Your task to perform on an android device: Open Wikipedia Image 0: 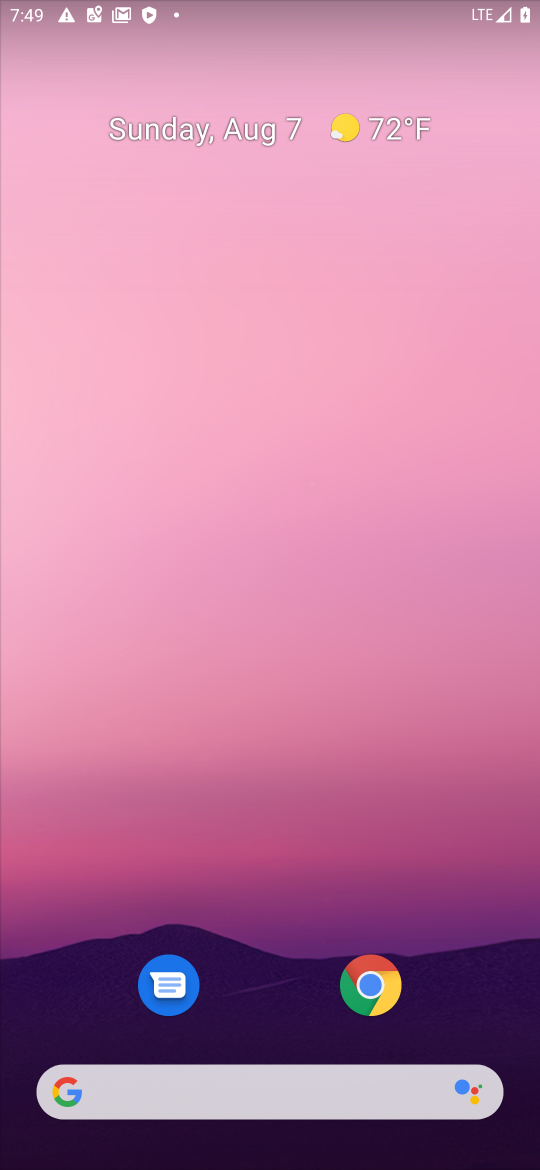
Step 0: drag from (257, 1019) to (277, 379)
Your task to perform on an android device: Open Wikipedia Image 1: 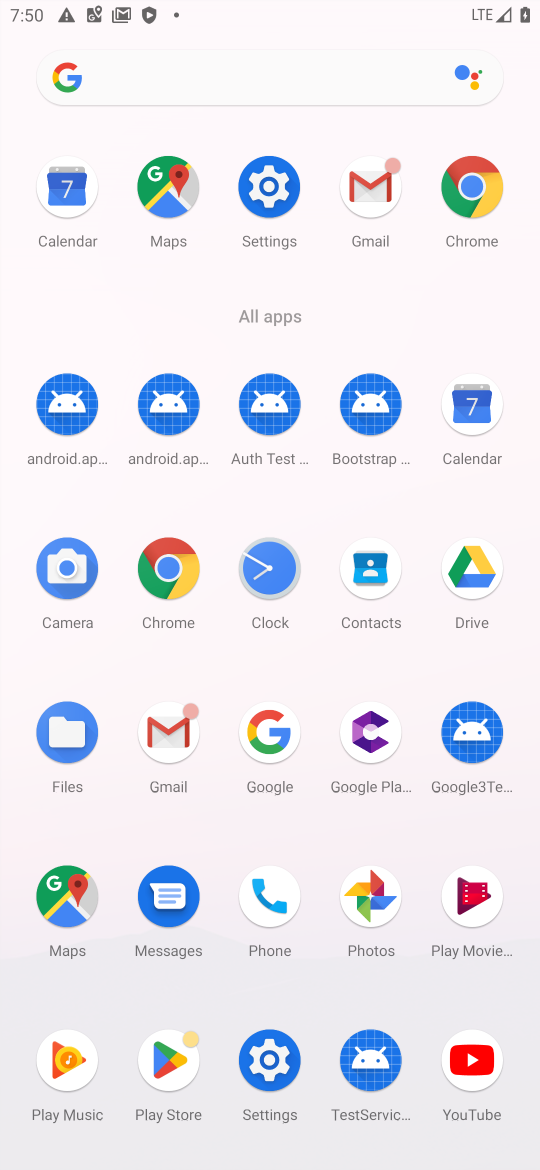
Step 1: click (182, 184)
Your task to perform on an android device: Open Wikipedia Image 2: 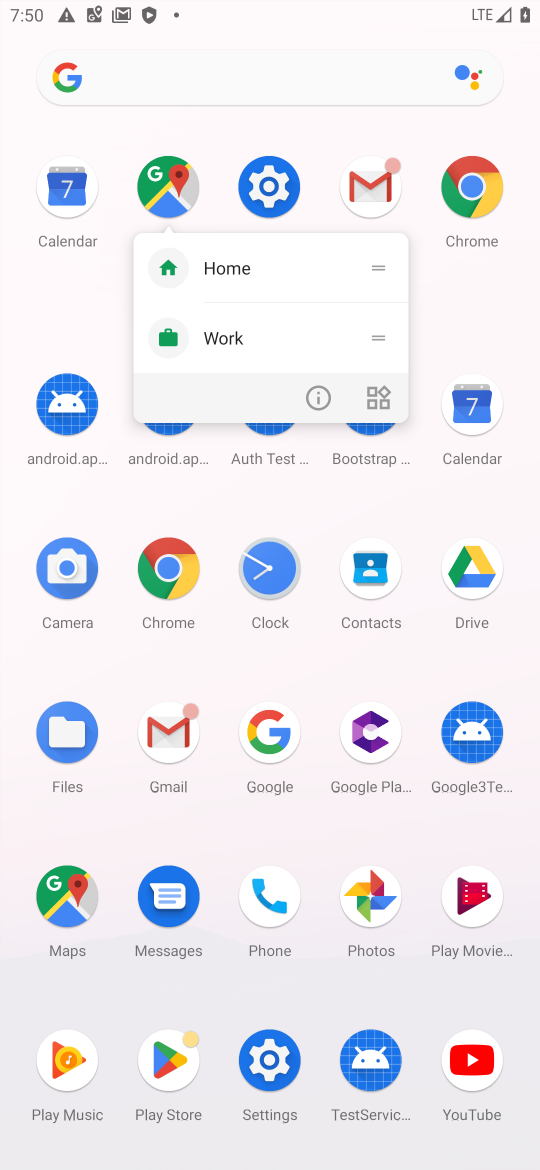
Step 2: click (157, 578)
Your task to perform on an android device: Open Wikipedia Image 3: 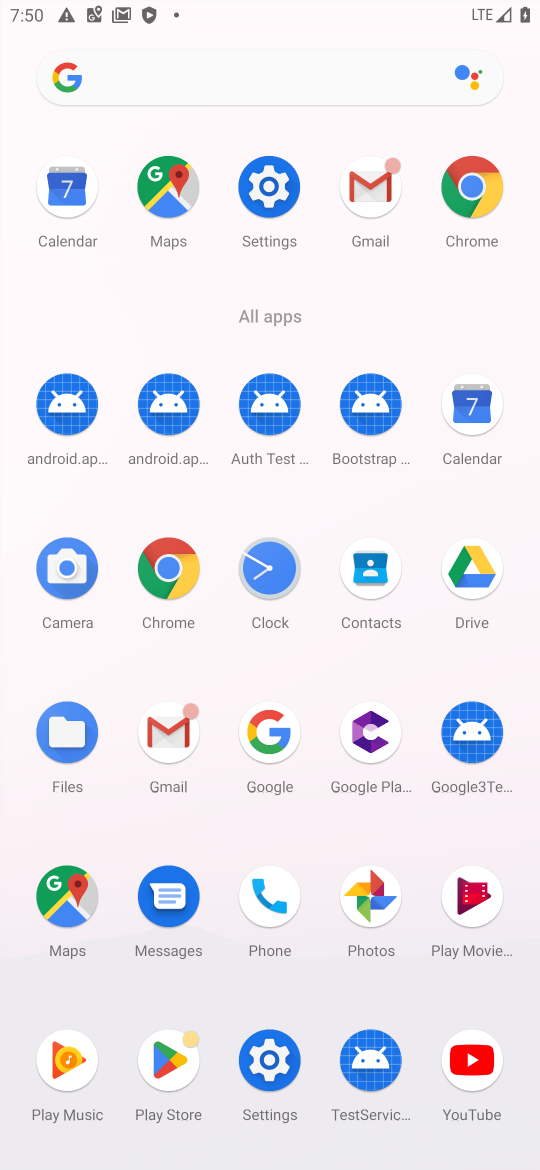
Step 3: click (157, 578)
Your task to perform on an android device: Open Wikipedia Image 4: 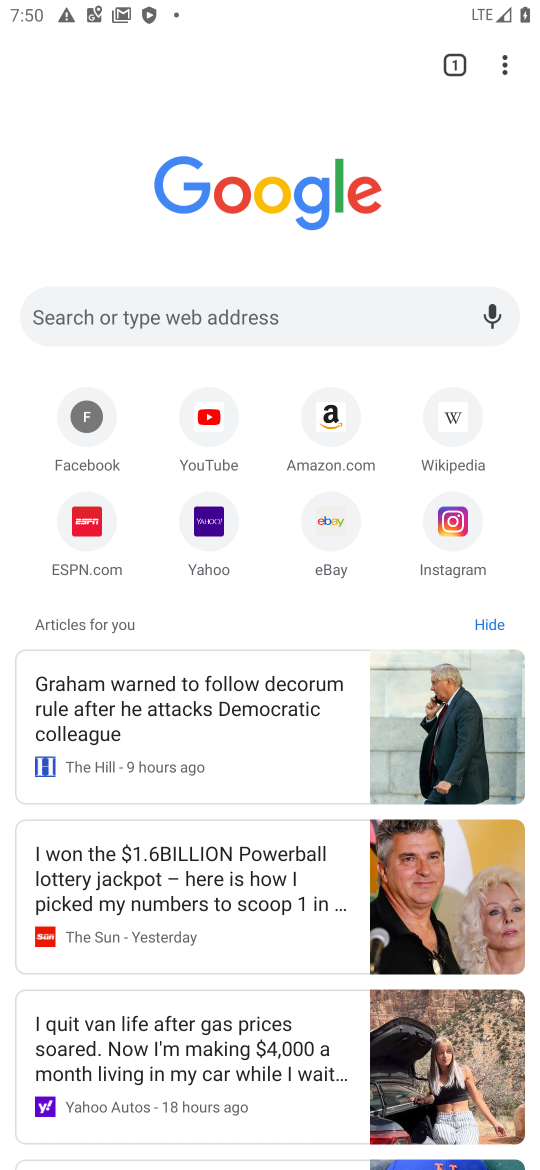
Step 4: click (500, 58)
Your task to perform on an android device: Open Wikipedia Image 5: 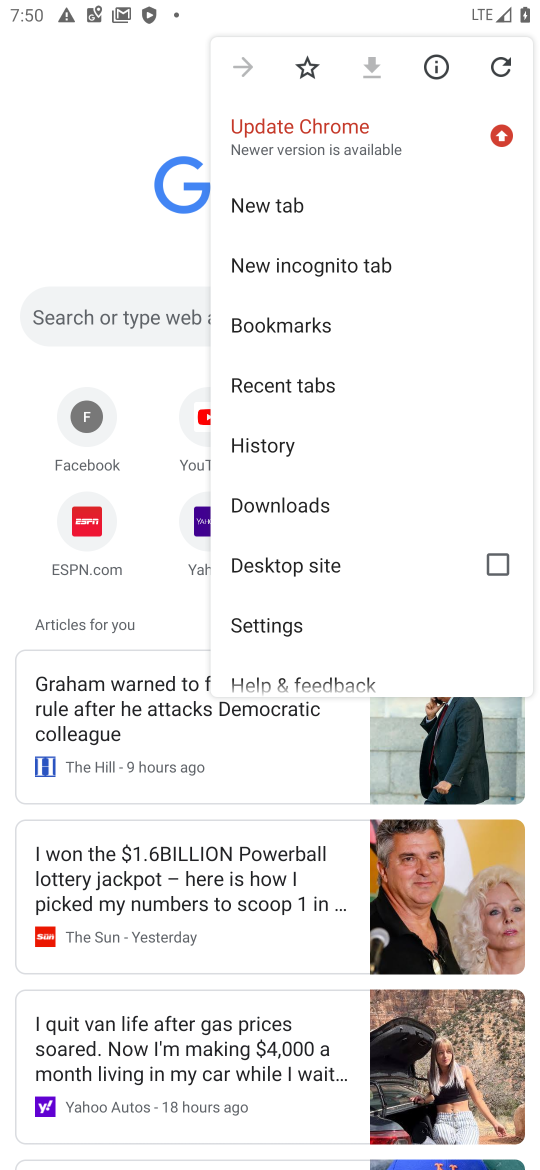
Step 5: click (271, 631)
Your task to perform on an android device: Open Wikipedia Image 6: 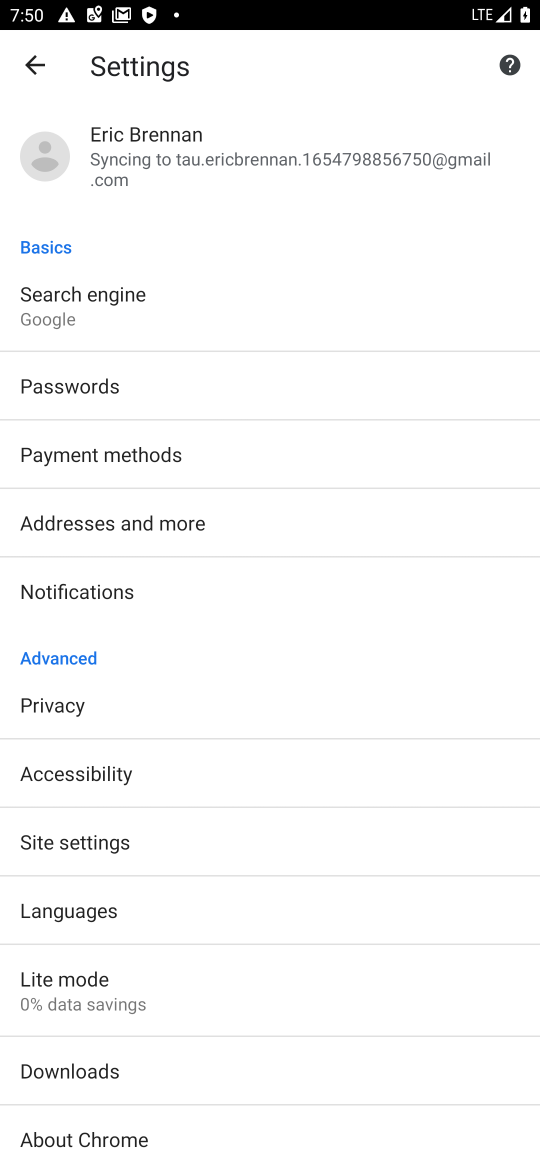
Step 6: click (49, 64)
Your task to perform on an android device: Open Wikipedia Image 7: 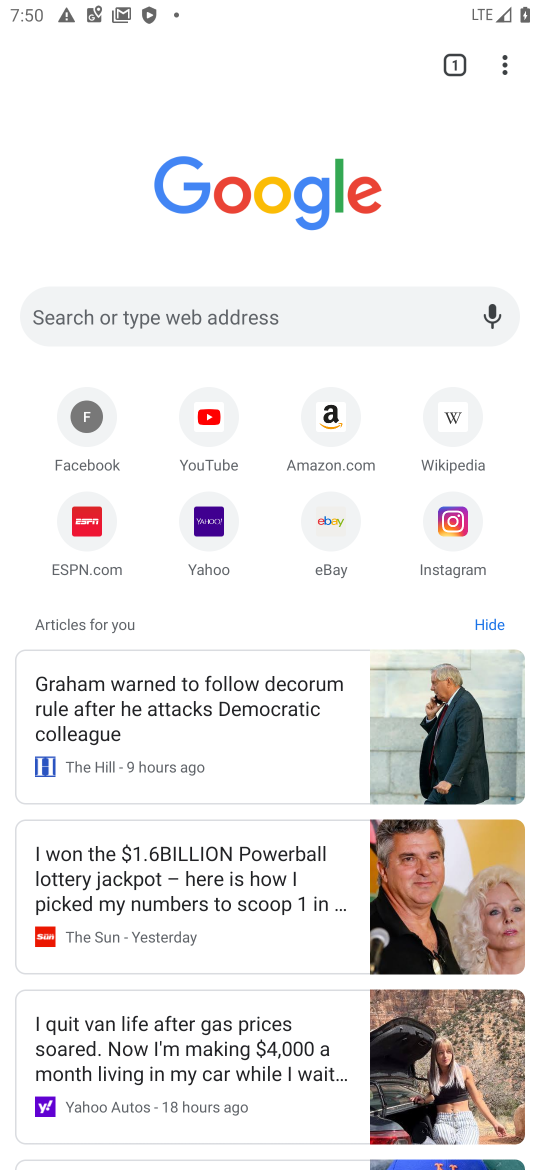
Step 7: click (466, 419)
Your task to perform on an android device: Open Wikipedia Image 8: 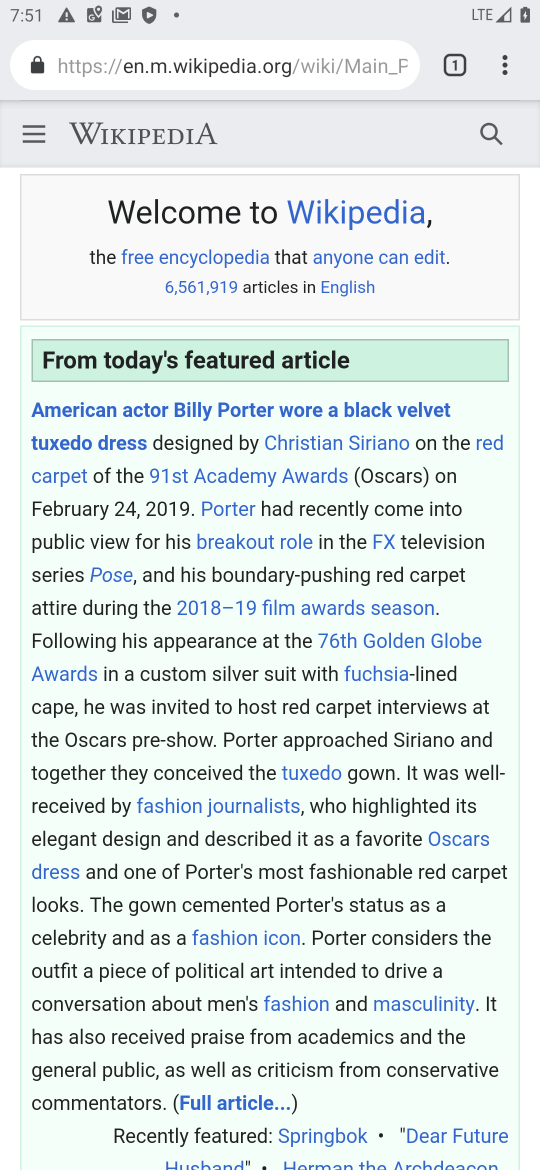
Step 8: task complete